Your task to perform on an android device: Open Maps and search for coffee Image 0: 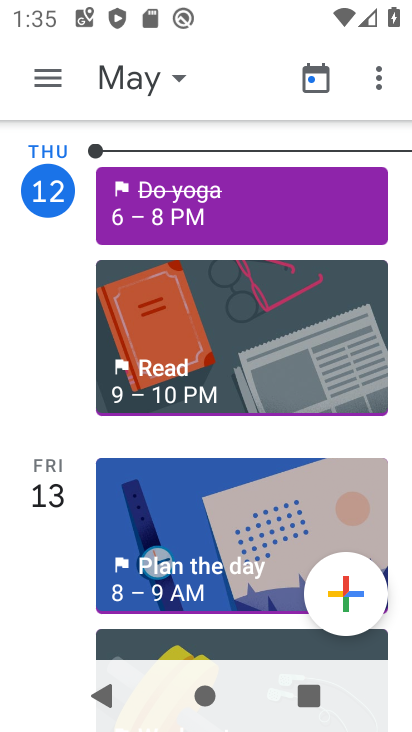
Step 0: press home button
Your task to perform on an android device: Open Maps and search for coffee Image 1: 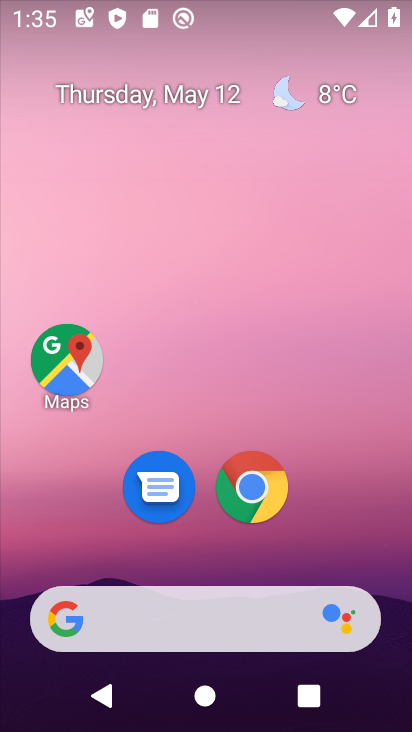
Step 1: click (68, 381)
Your task to perform on an android device: Open Maps and search for coffee Image 2: 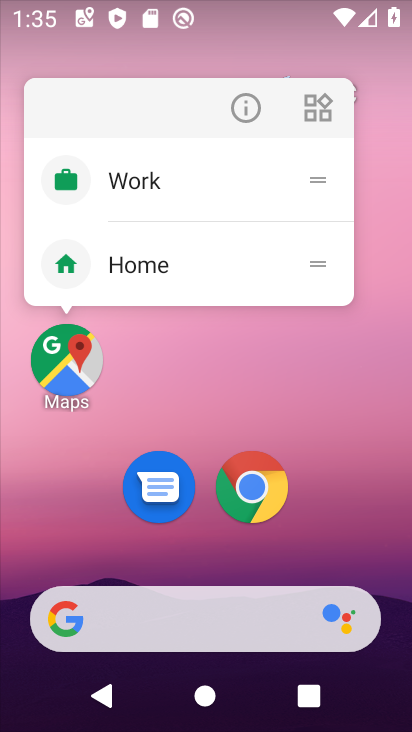
Step 2: click (68, 381)
Your task to perform on an android device: Open Maps and search for coffee Image 3: 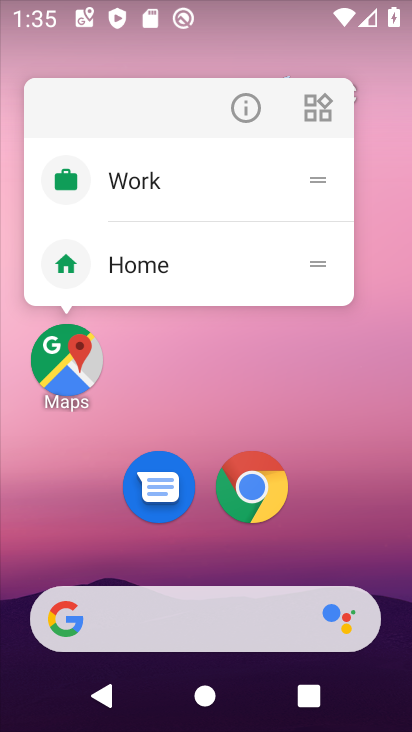
Step 3: click (59, 368)
Your task to perform on an android device: Open Maps and search for coffee Image 4: 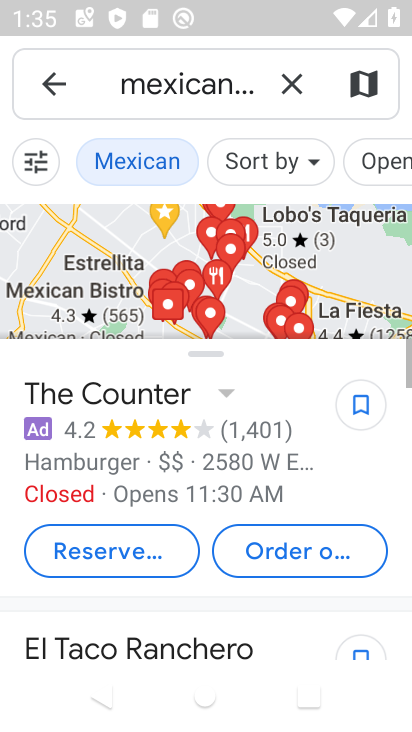
Step 4: click (287, 82)
Your task to perform on an android device: Open Maps and search for coffee Image 5: 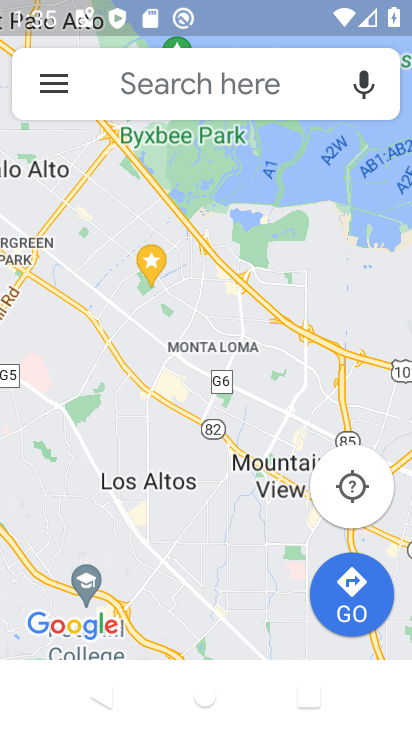
Step 5: click (189, 80)
Your task to perform on an android device: Open Maps and search for coffee Image 6: 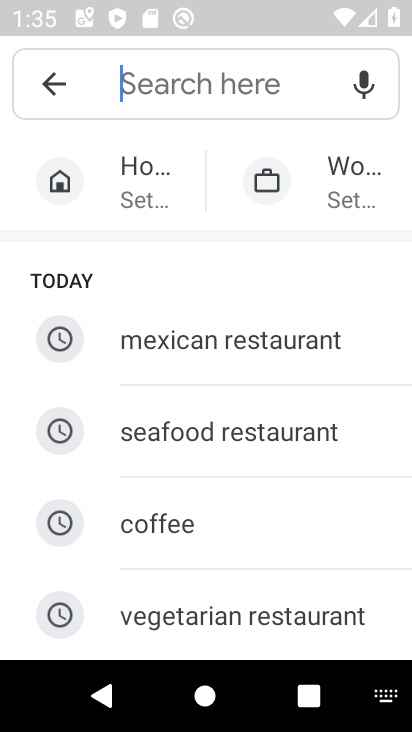
Step 6: type "coffee"
Your task to perform on an android device: Open Maps and search for coffee Image 7: 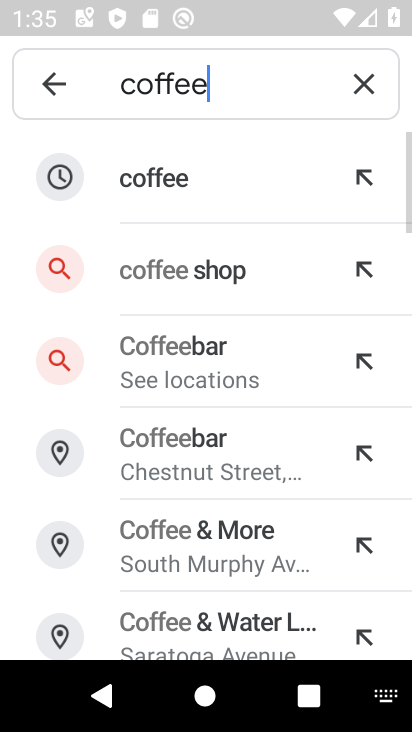
Step 7: click (197, 188)
Your task to perform on an android device: Open Maps and search for coffee Image 8: 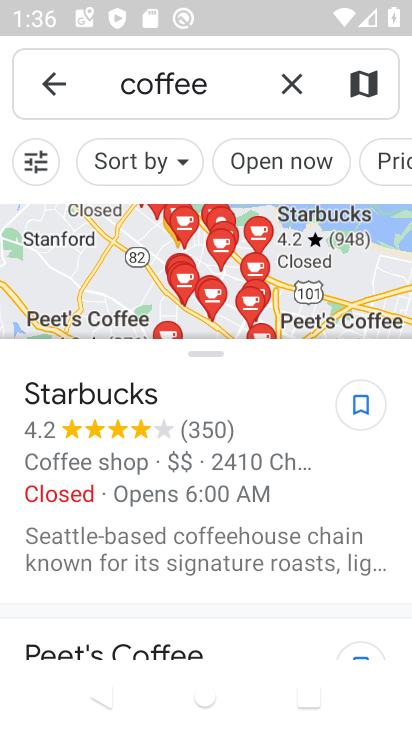
Step 8: task complete